Your task to perform on an android device: turn off translation in the chrome app Image 0: 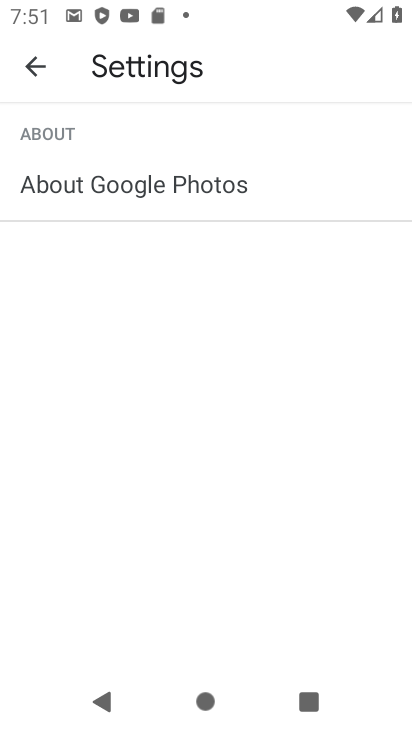
Step 0: press home button
Your task to perform on an android device: turn off translation in the chrome app Image 1: 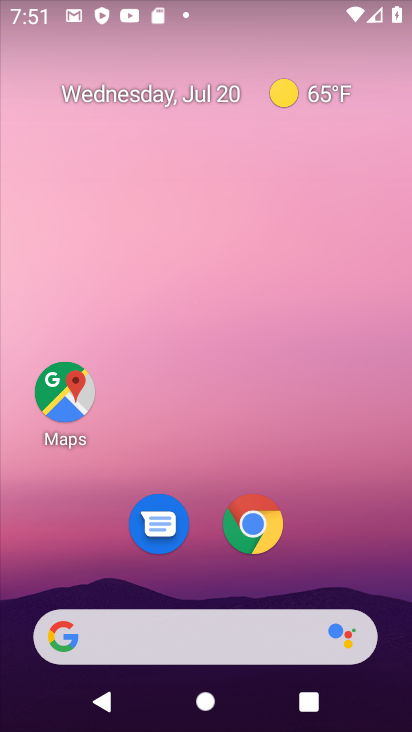
Step 1: click (252, 536)
Your task to perform on an android device: turn off translation in the chrome app Image 2: 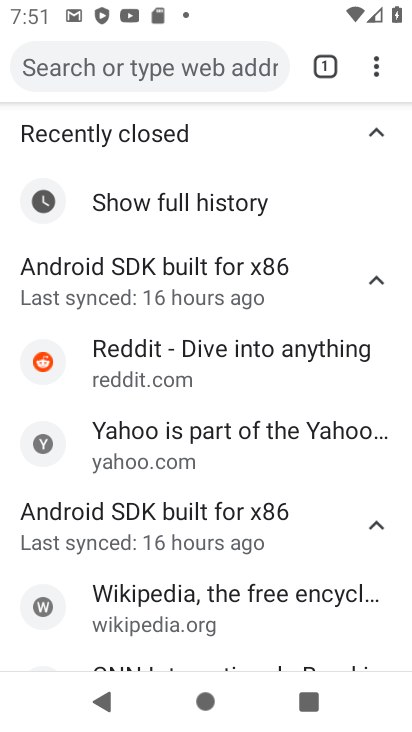
Step 2: click (372, 65)
Your task to perform on an android device: turn off translation in the chrome app Image 3: 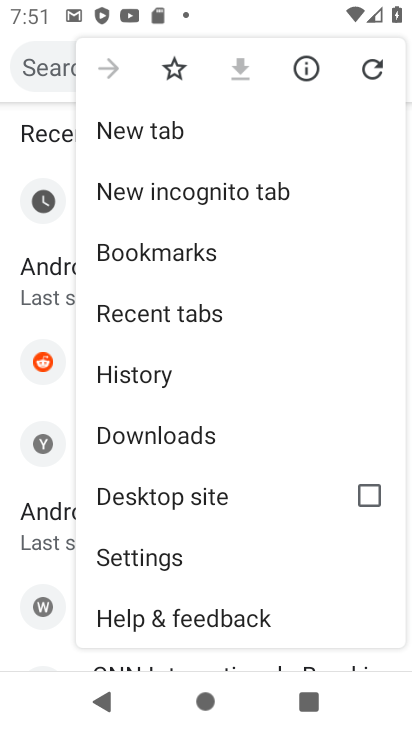
Step 3: click (159, 552)
Your task to perform on an android device: turn off translation in the chrome app Image 4: 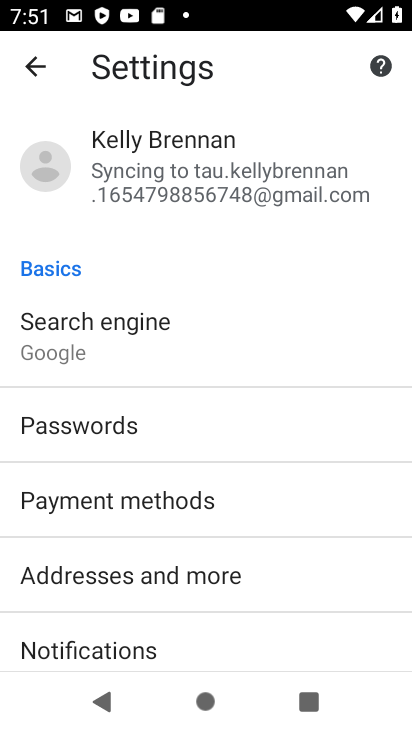
Step 4: drag from (159, 552) to (183, 193)
Your task to perform on an android device: turn off translation in the chrome app Image 5: 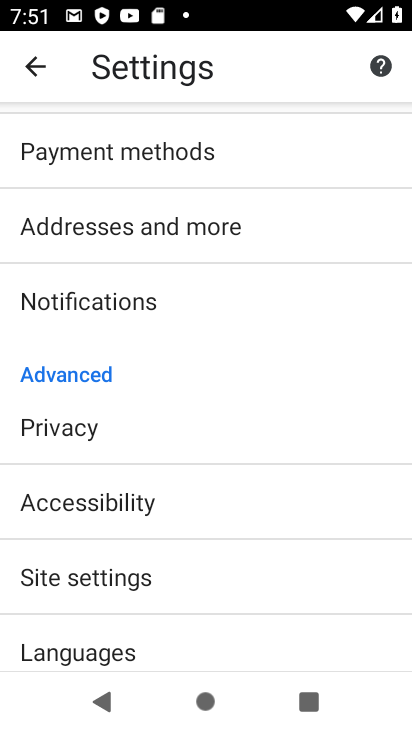
Step 5: click (127, 627)
Your task to perform on an android device: turn off translation in the chrome app Image 6: 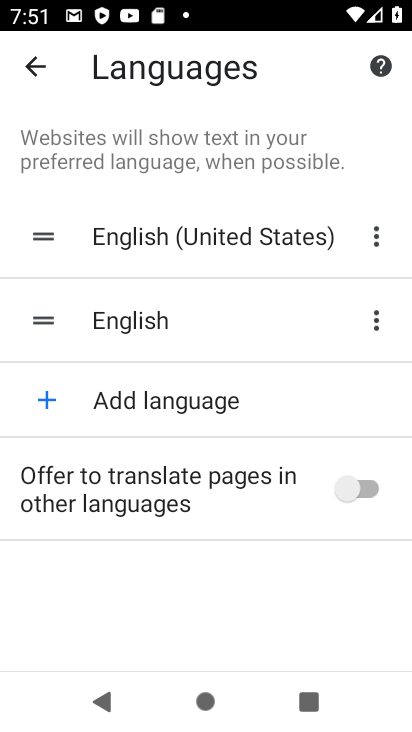
Step 6: task complete